Your task to perform on an android device: Go to Yahoo.com Image 0: 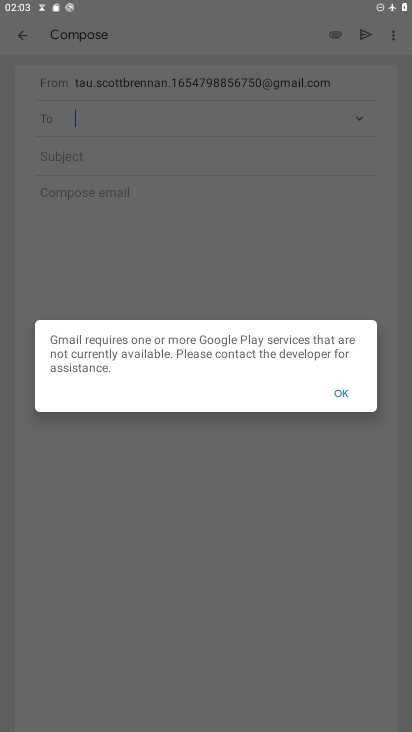
Step 0: press home button
Your task to perform on an android device: Go to Yahoo.com Image 1: 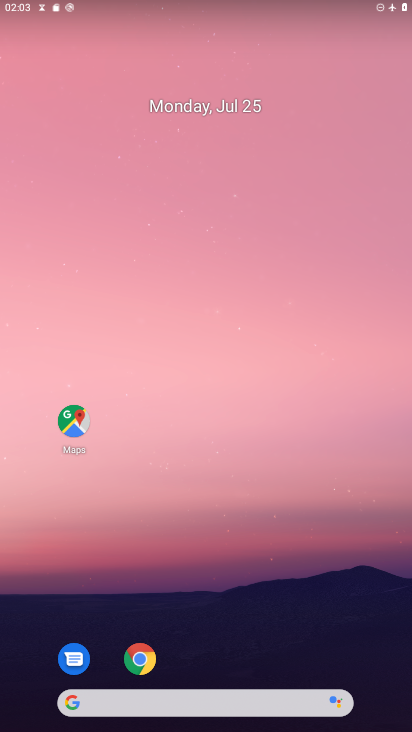
Step 1: drag from (243, 649) to (234, 180)
Your task to perform on an android device: Go to Yahoo.com Image 2: 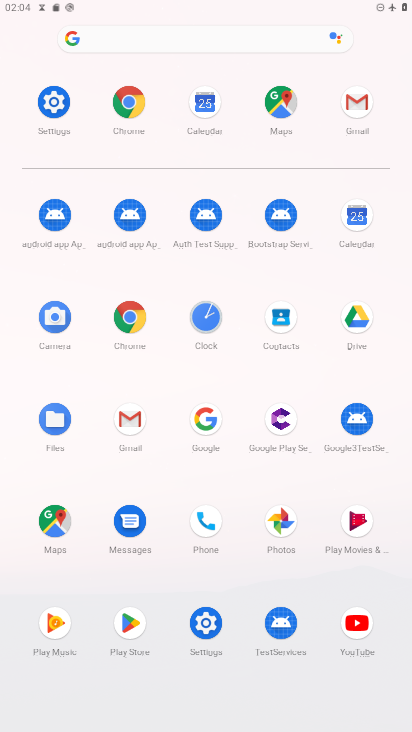
Step 2: click (140, 94)
Your task to perform on an android device: Go to Yahoo.com Image 3: 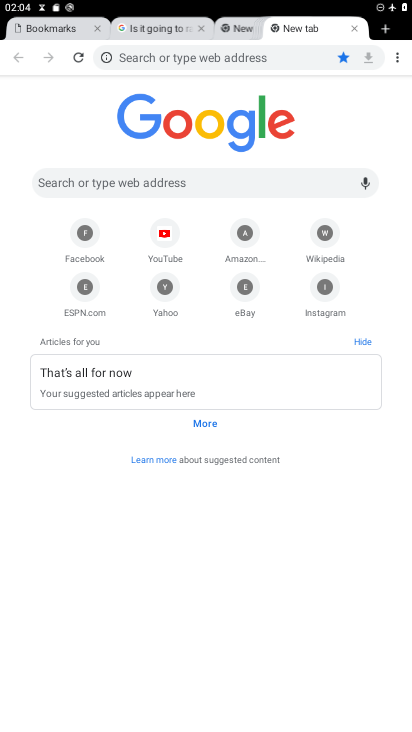
Step 3: click (158, 282)
Your task to perform on an android device: Go to Yahoo.com Image 4: 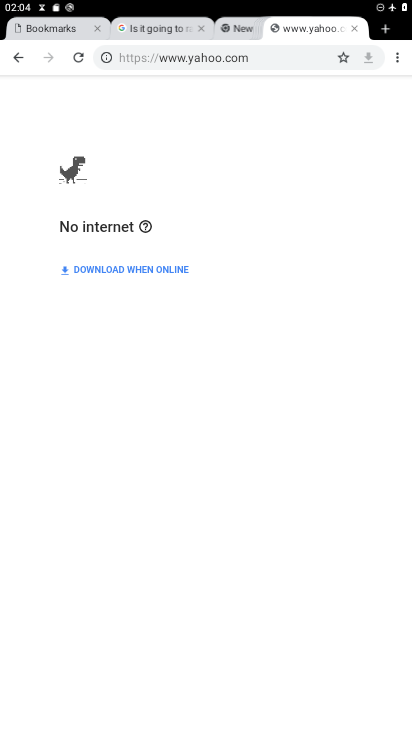
Step 4: task complete